Your task to perform on an android device: Open my contact list Image 0: 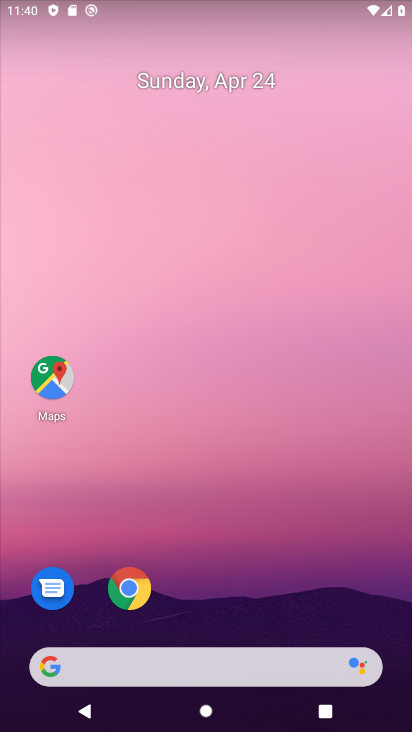
Step 0: drag from (323, 418) to (322, 15)
Your task to perform on an android device: Open my contact list Image 1: 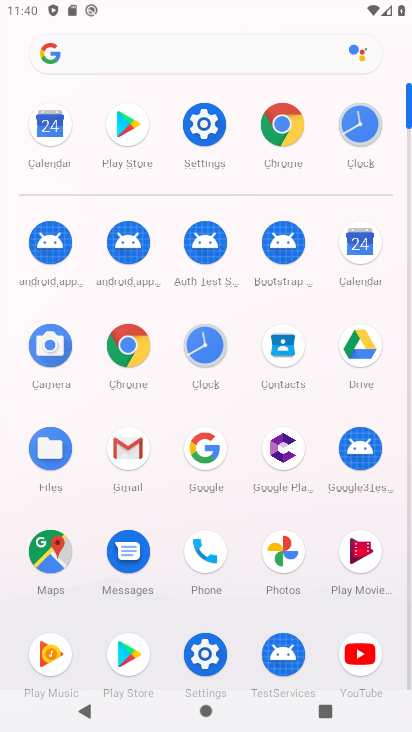
Step 1: click (280, 355)
Your task to perform on an android device: Open my contact list Image 2: 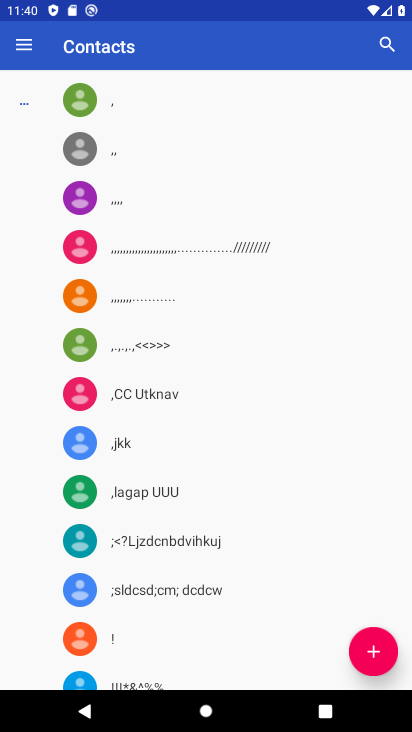
Step 2: task complete